Your task to perform on an android device: move an email to a new category in the gmail app Image 0: 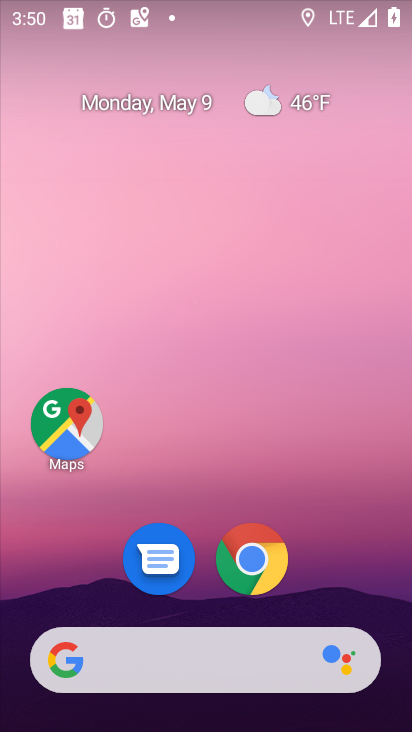
Step 0: drag from (202, 491) to (215, 19)
Your task to perform on an android device: move an email to a new category in the gmail app Image 1: 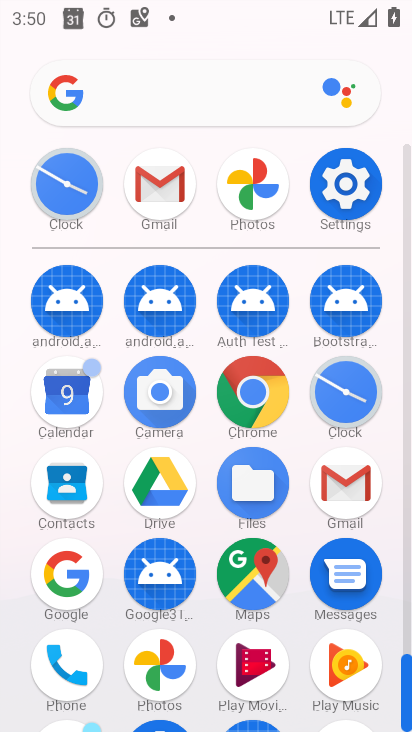
Step 1: click (150, 184)
Your task to perform on an android device: move an email to a new category in the gmail app Image 2: 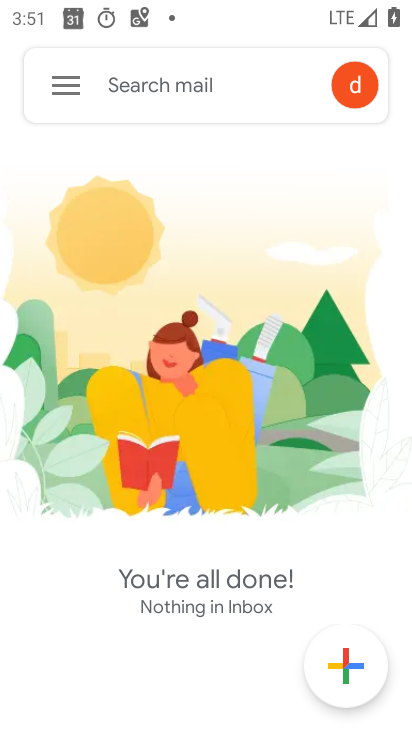
Step 2: click (56, 87)
Your task to perform on an android device: move an email to a new category in the gmail app Image 3: 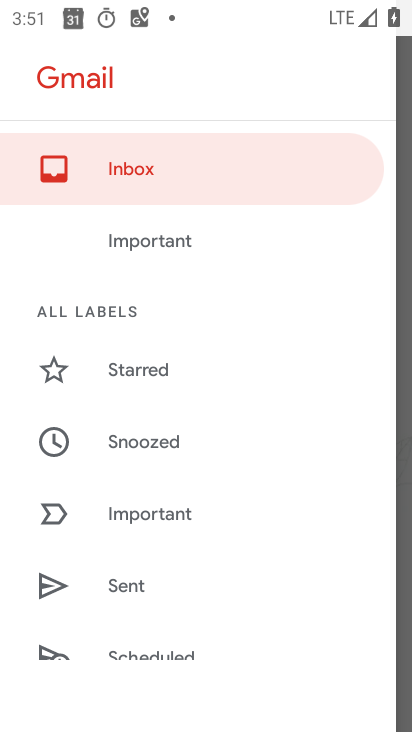
Step 3: drag from (154, 474) to (170, 323)
Your task to perform on an android device: move an email to a new category in the gmail app Image 4: 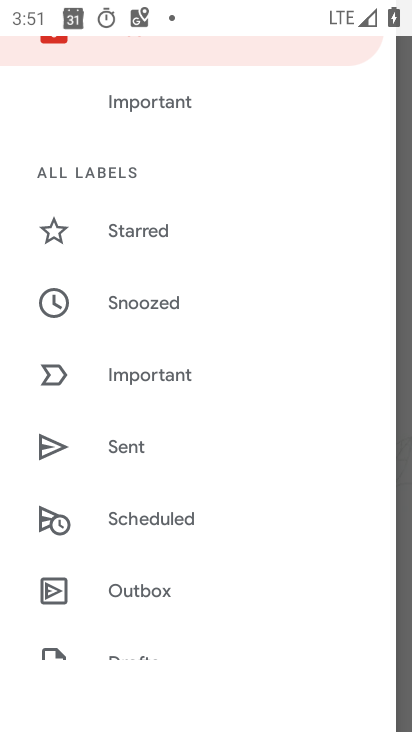
Step 4: drag from (159, 441) to (198, 325)
Your task to perform on an android device: move an email to a new category in the gmail app Image 5: 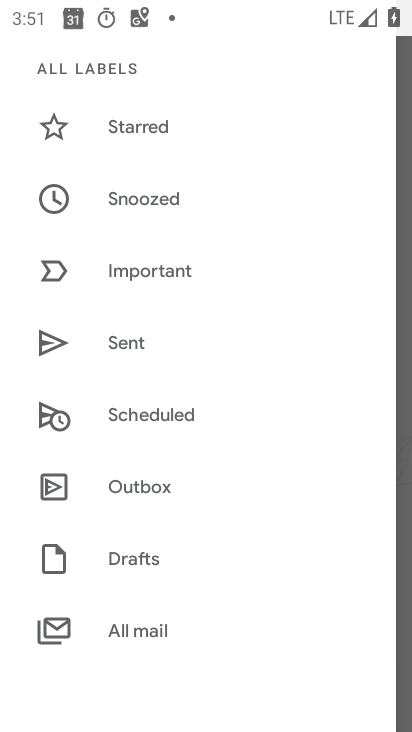
Step 5: drag from (179, 486) to (200, 375)
Your task to perform on an android device: move an email to a new category in the gmail app Image 6: 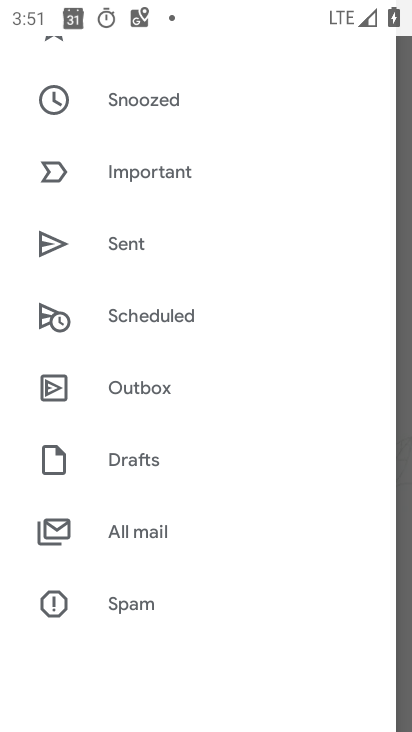
Step 6: click (171, 470)
Your task to perform on an android device: move an email to a new category in the gmail app Image 7: 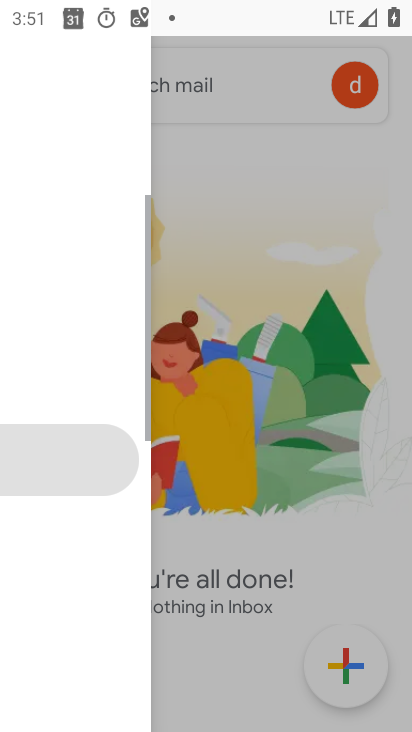
Step 7: click (121, 586)
Your task to perform on an android device: move an email to a new category in the gmail app Image 8: 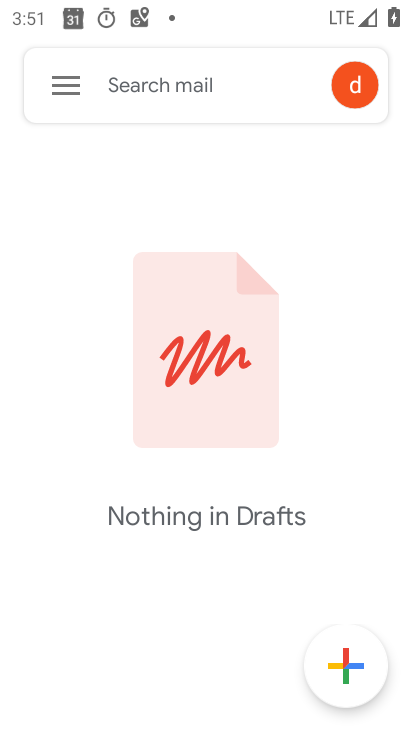
Step 8: task complete